Your task to perform on an android device: Add "usb-c to usb-b" to the cart on newegg Image 0: 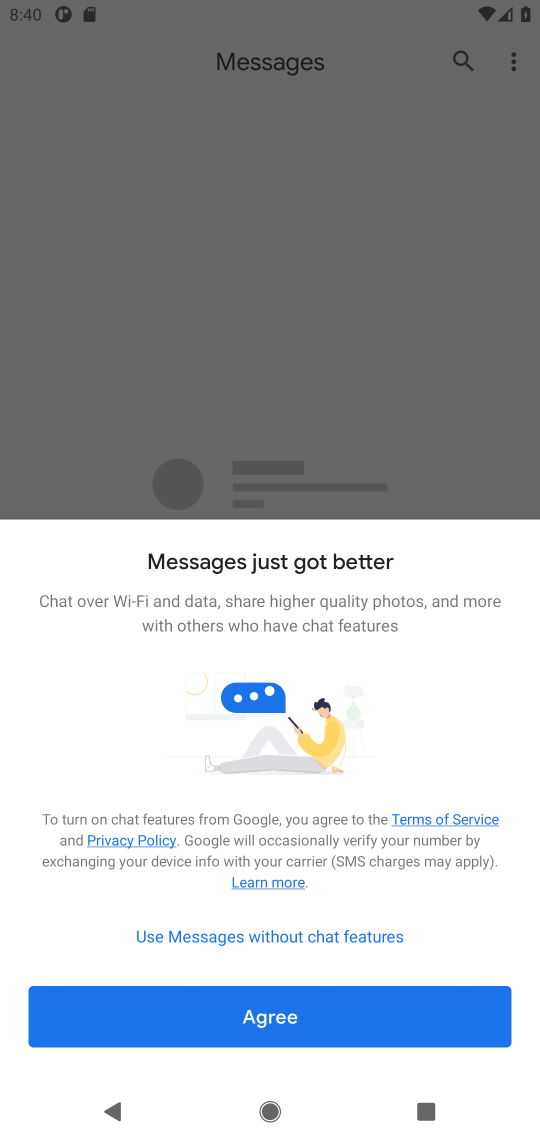
Step 0: press home button
Your task to perform on an android device: Add "usb-c to usb-b" to the cart on newegg Image 1: 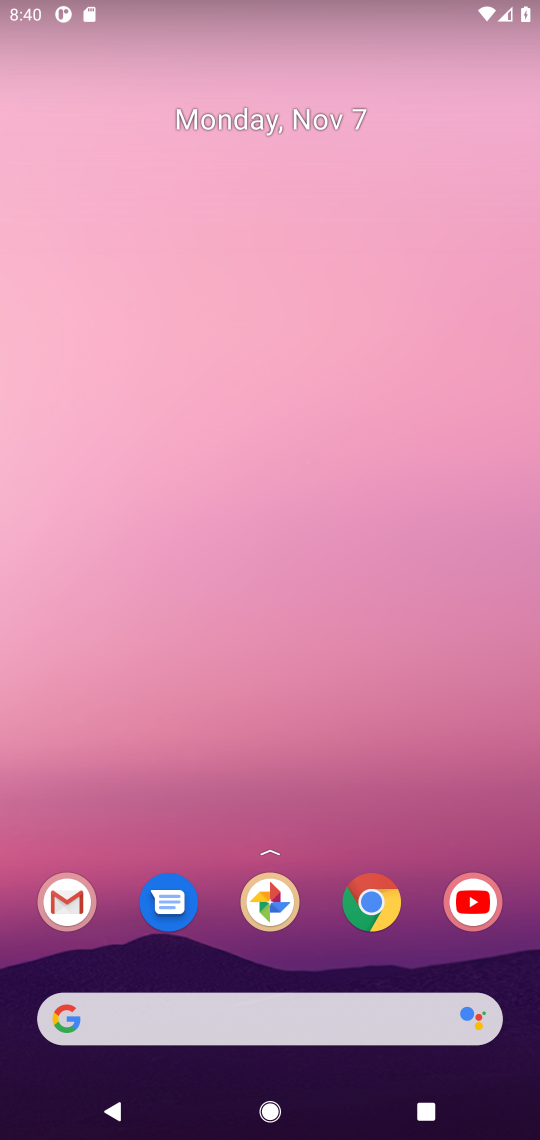
Step 1: click (376, 908)
Your task to perform on an android device: Add "usb-c to usb-b" to the cart on newegg Image 2: 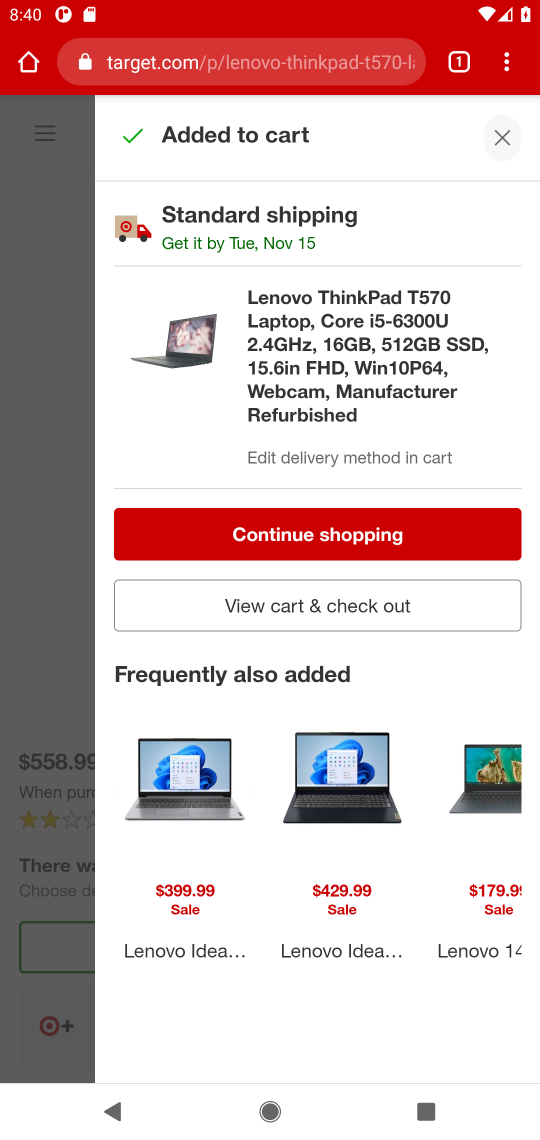
Step 2: click (214, 55)
Your task to perform on an android device: Add "usb-c to usb-b" to the cart on newegg Image 3: 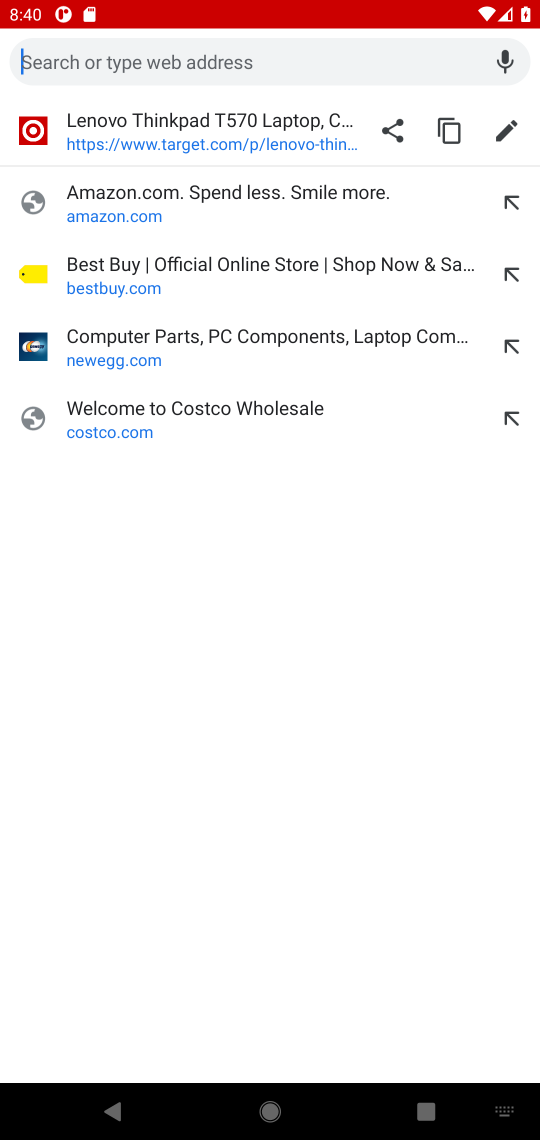
Step 3: click (94, 348)
Your task to perform on an android device: Add "usb-c to usb-b" to the cart on newegg Image 4: 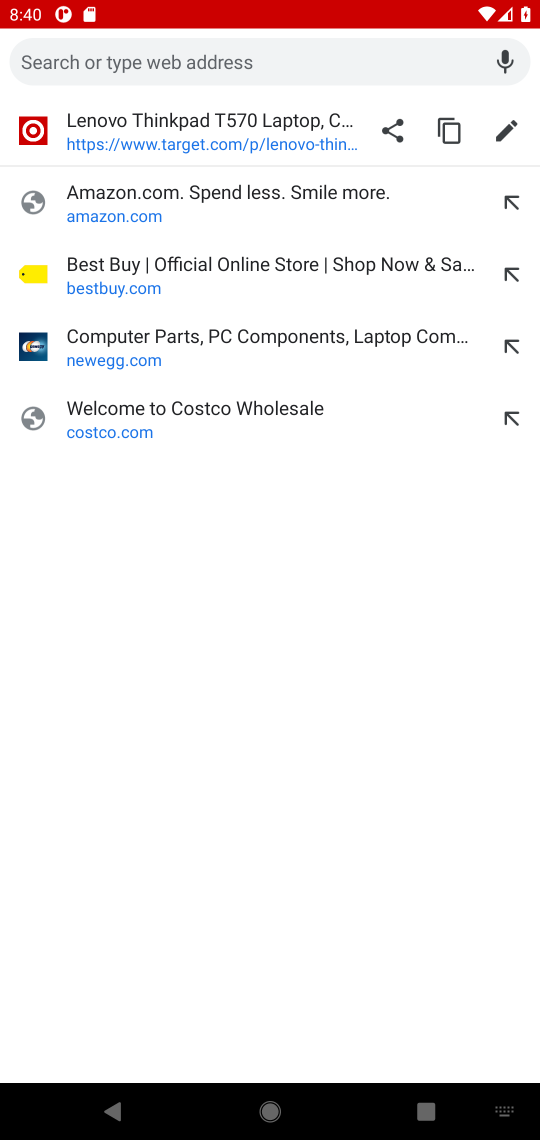
Step 4: click (107, 343)
Your task to perform on an android device: Add "usb-c to usb-b" to the cart on newegg Image 5: 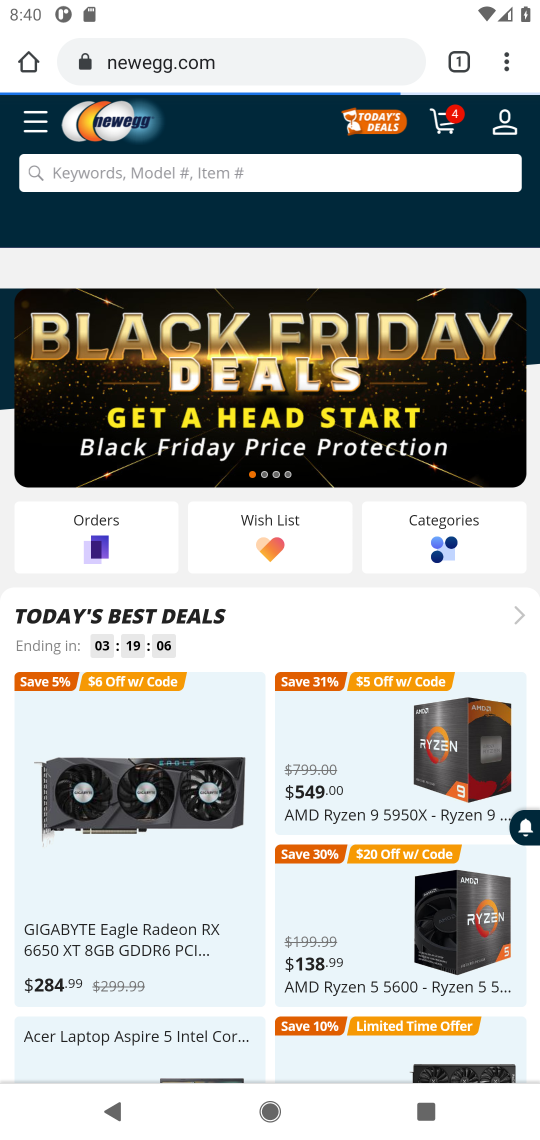
Step 5: click (203, 177)
Your task to perform on an android device: Add "usb-c to usb-b" to the cart on newegg Image 6: 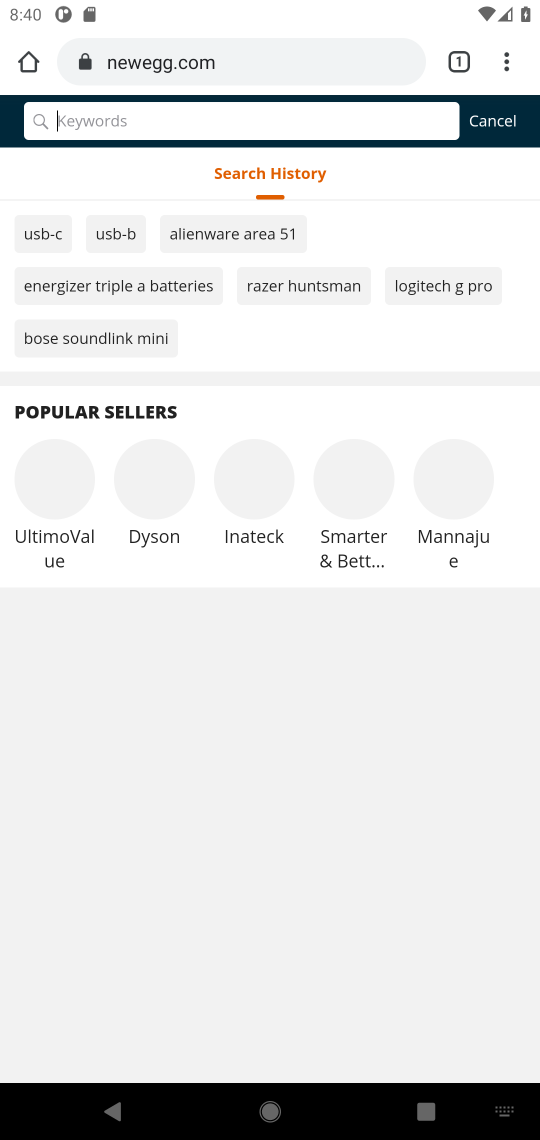
Step 6: type "usb-c to usb-b"
Your task to perform on an android device: Add "usb-c to usb-b" to the cart on newegg Image 7: 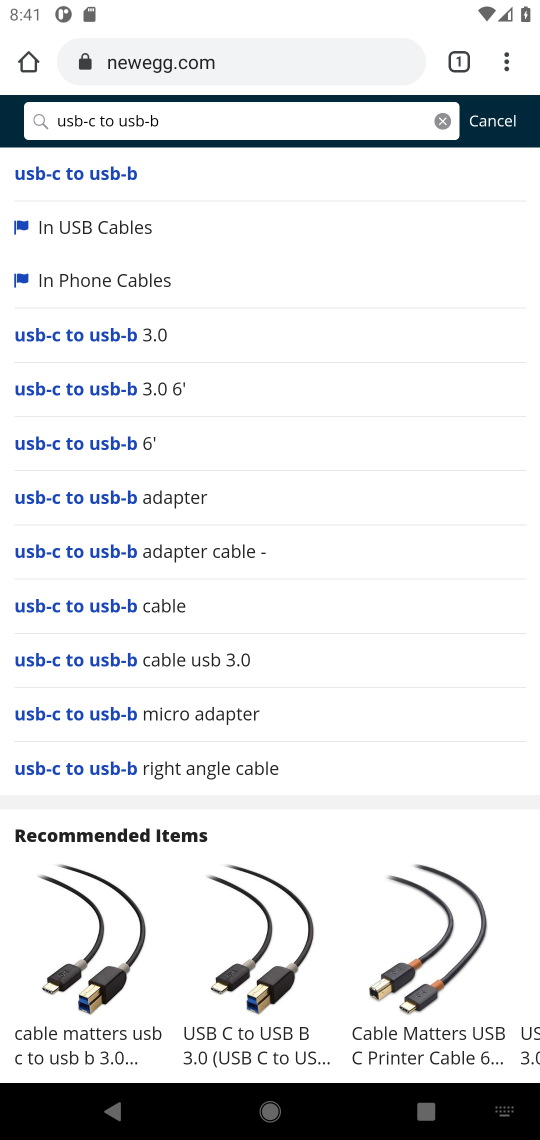
Step 7: click (99, 181)
Your task to perform on an android device: Add "usb-c to usb-b" to the cart on newegg Image 8: 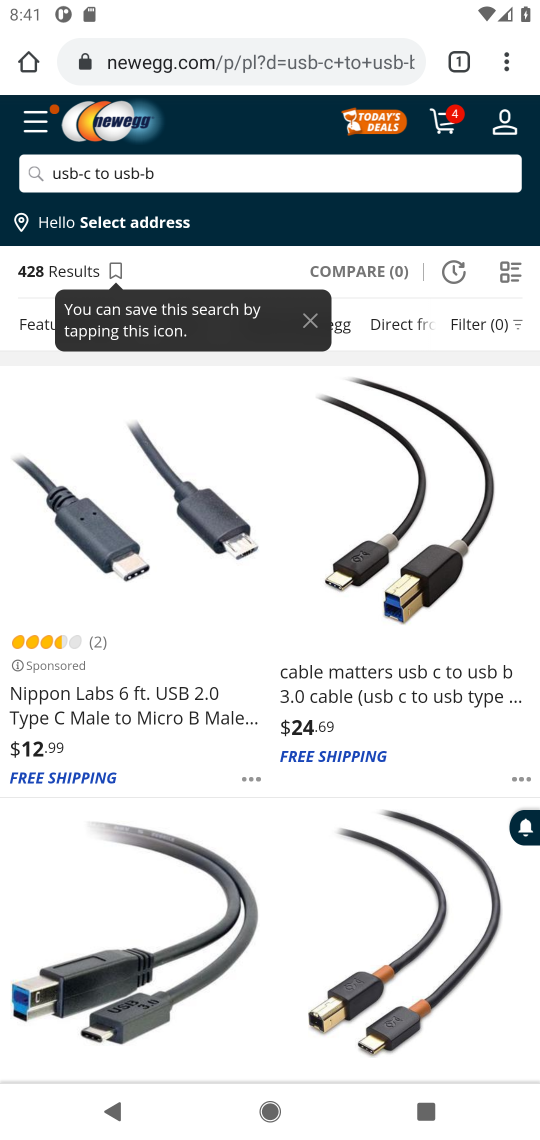
Step 8: click (365, 588)
Your task to perform on an android device: Add "usb-c to usb-b" to the cart on newegg Image 9: 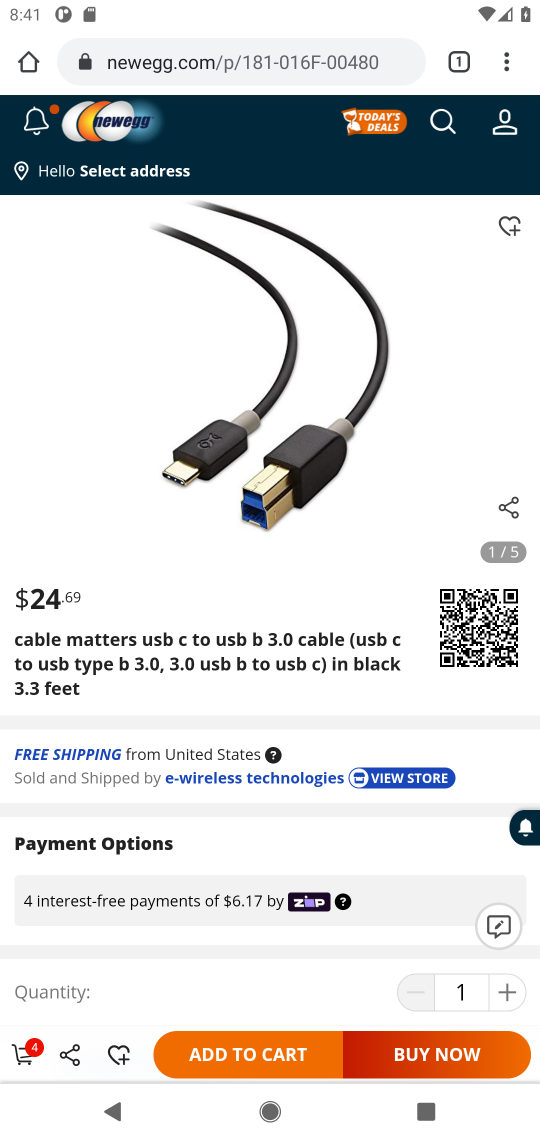
Step 9: click (231, 1058)
Your task to perform on an android device: Add "usb-c to usb-b" to the cart on newegg Image 10: 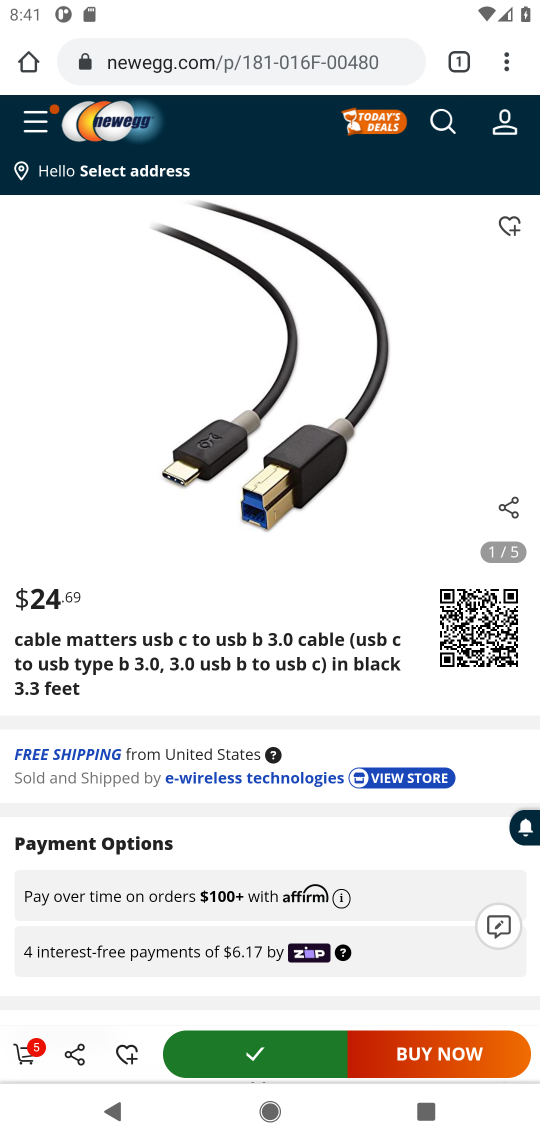
Step 10: task complete